Your task to perform on an android device: turn off picture-in-picture Image 0: 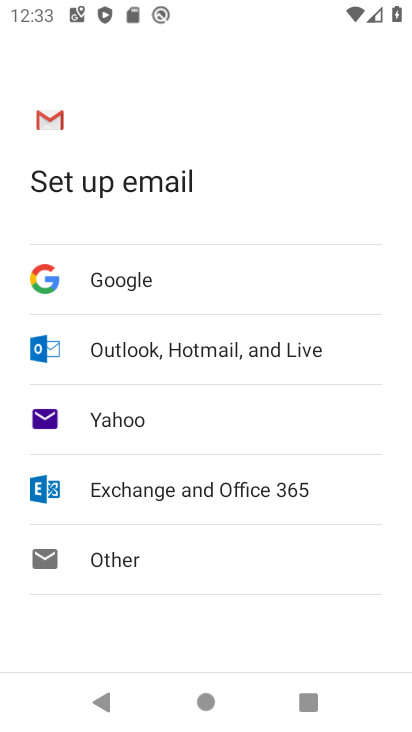
Step 0: press home button
Your task to perform on an android device: turn off picture-in-picture Image 1: 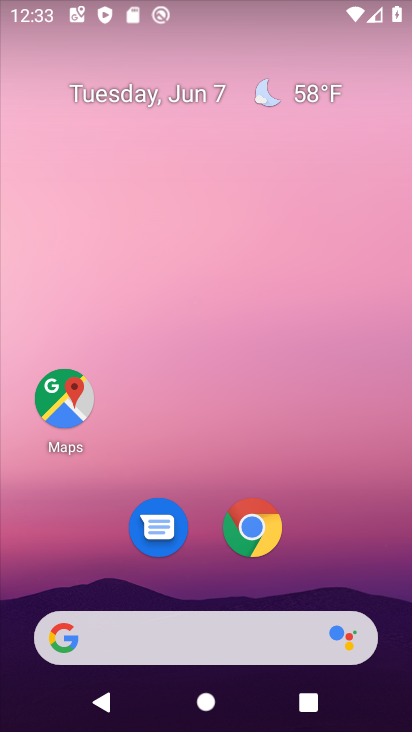
Step 1: click (261, 529)
Your task to perform on an android device: turn off picture-in-picture Image 2: 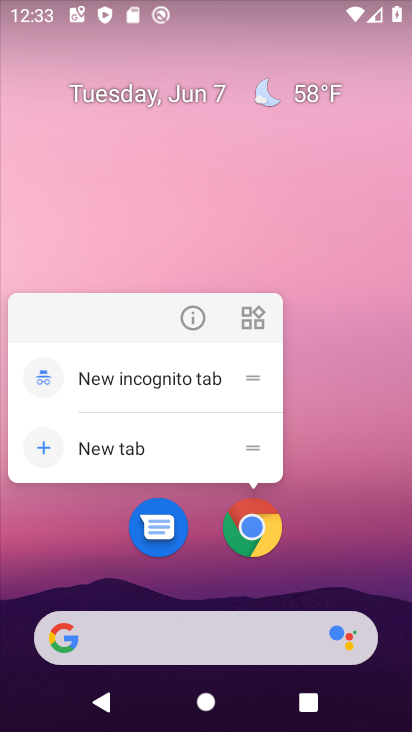
Step 2: click (190, 312)
Your task to perform on an android device: turn off picture-in-picture Image 3: 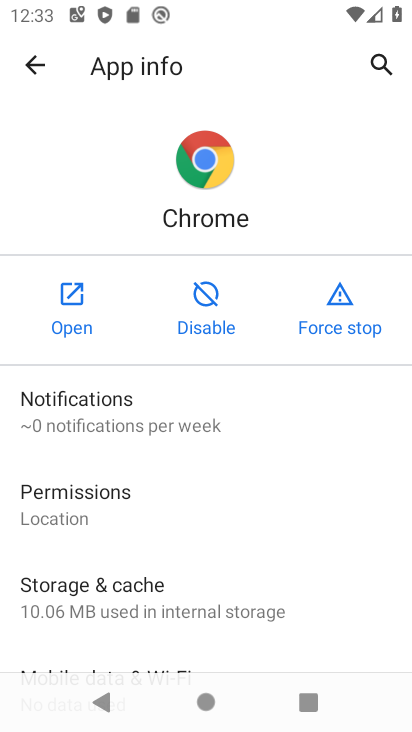
Step 3: drag from (250, 588) to (15, 16)
Your task to perform on an android device: turn off picture-in-picture Image 4: 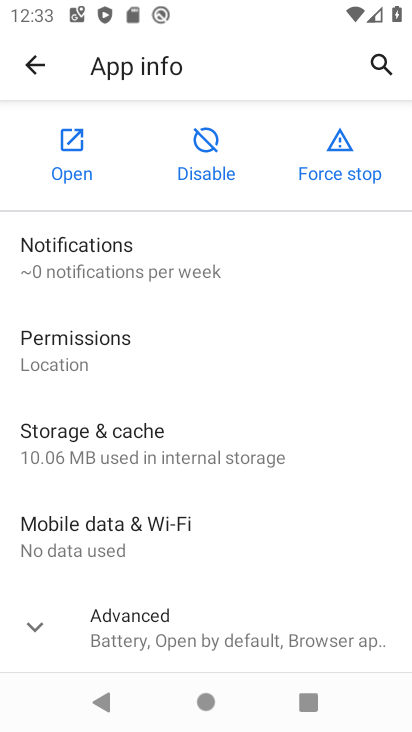
Step 4: click (101, 639)
Your task to perform on an android device: turn off picture-in-picture Image 5: 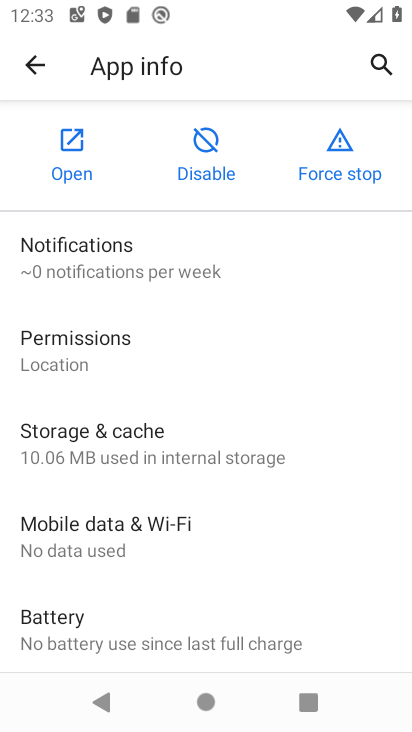
Step 5: drag from (101, 639) to (19, 228)
Your task to perform on an android device: turn off picture-in-picture Image 6: 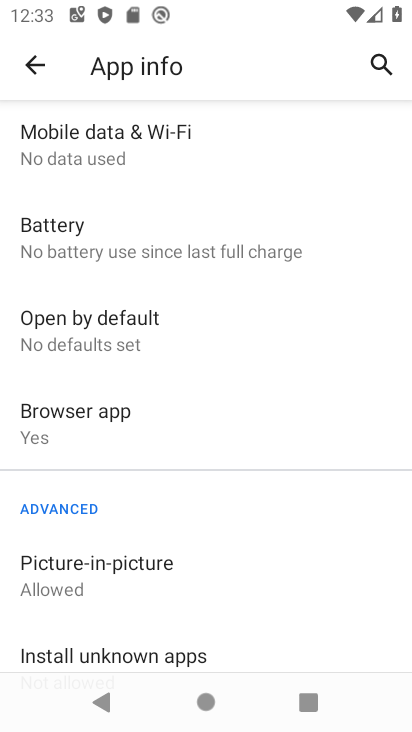
Step 6: click (119, 569)
Your task to perform on an android device: turn off picture-in-picture Image 7: 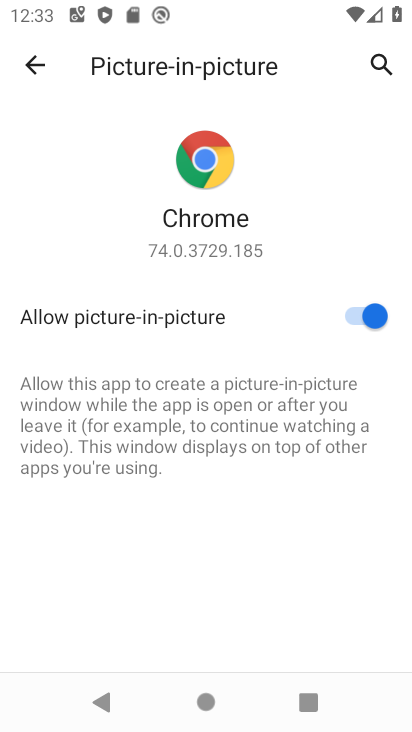
Step 7: click (366, 317)
Your task to perform on an android device: turn off picture-in-picture Image 8: 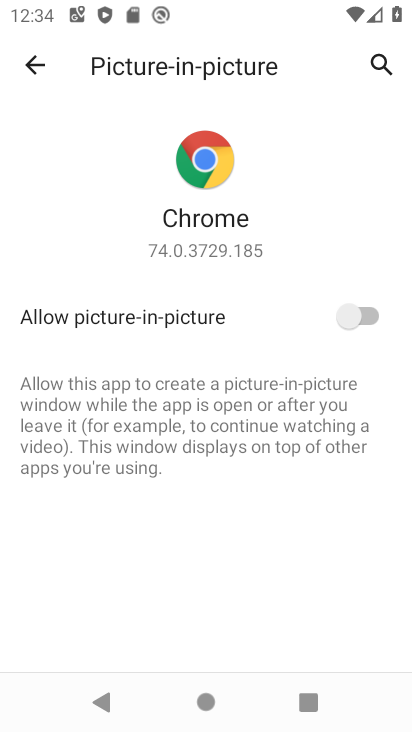
Step 8: task complete